Your task to perform on an android device: toggle priority inbox in the gmail app Image 0: 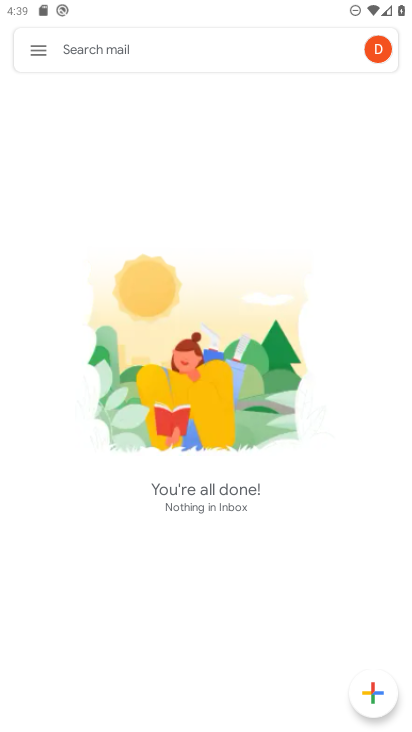
Step 0: press home button
Your task to perform on an android device: toggle priority inbox in the gmail app Image 1: 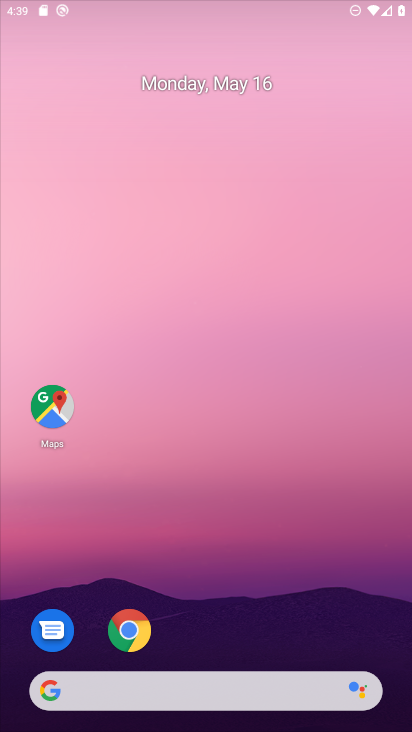
Step 1: drag from (348, 587) to (370, 21)
Your task to perform on an android device: toggle priority inbox in the gmail app Image 2: 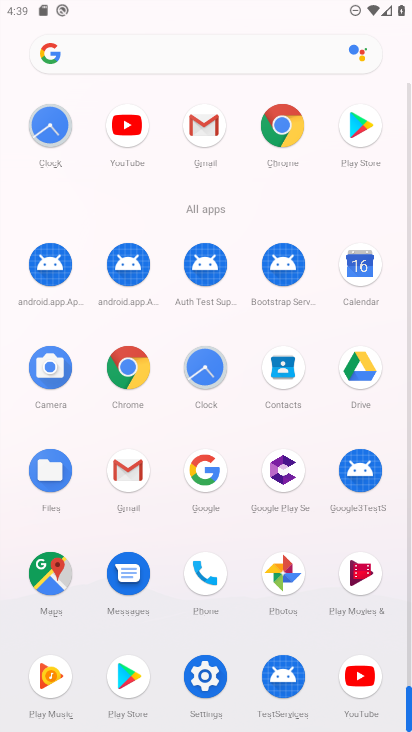
Step 2: click (201, 144)
Your task to perform on an android device: toggle priority inbox in the gmail app Image 3: 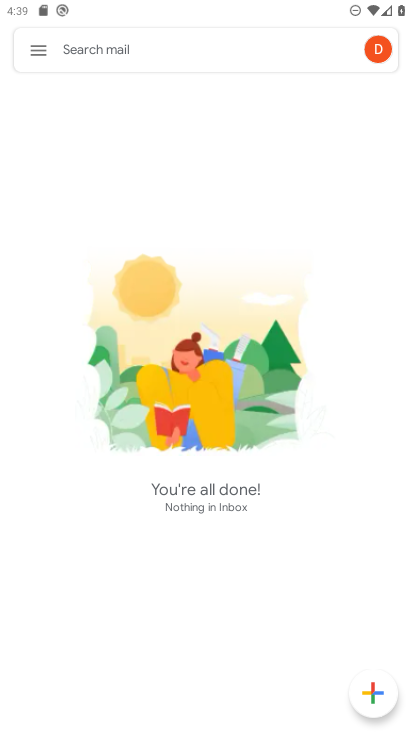
Step 3: click (46, 47)
Your task to perform on an android device: toggle priority inbox in the gmail app Image 4: 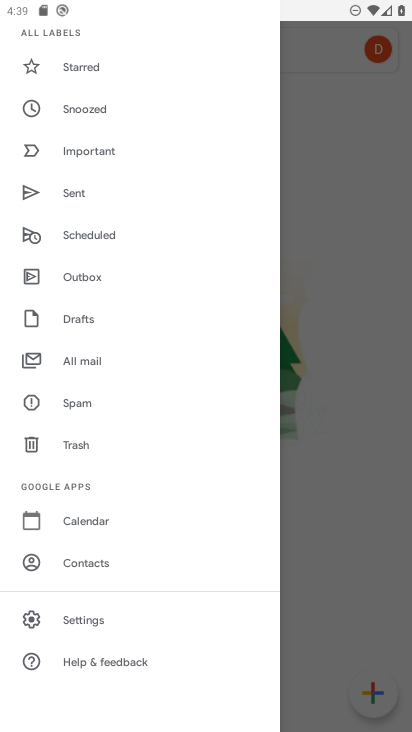
Step 4: click (66, 618)
Your task to perform on an android device: toggle priority inbox in the gmail app Image 5: 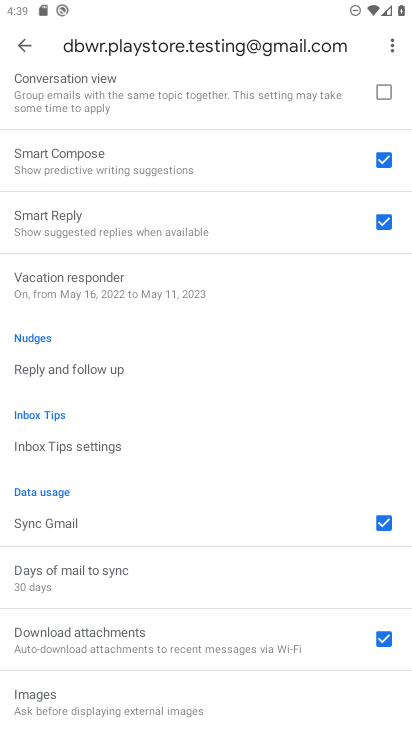
Step 5: drag from (153, 177) to (166, 728)
Your task to perform on an android device: toggle priority inbox in the gmail app Image 6: 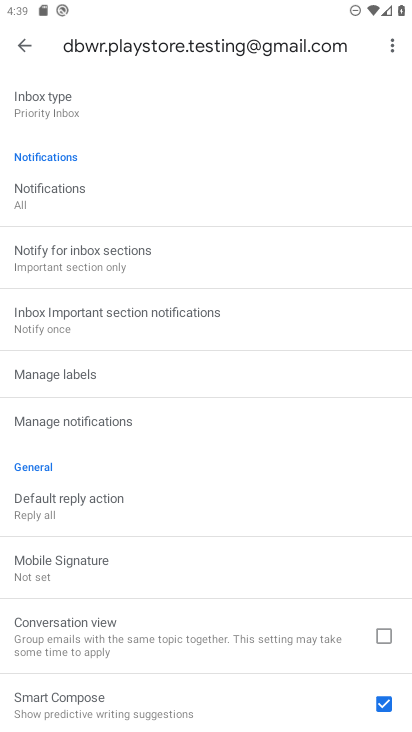
Step 6: drag from (104, 187) to (166, 726)
Your task to perform on an android device: toggle priority inbox in the gmail app Image 7: 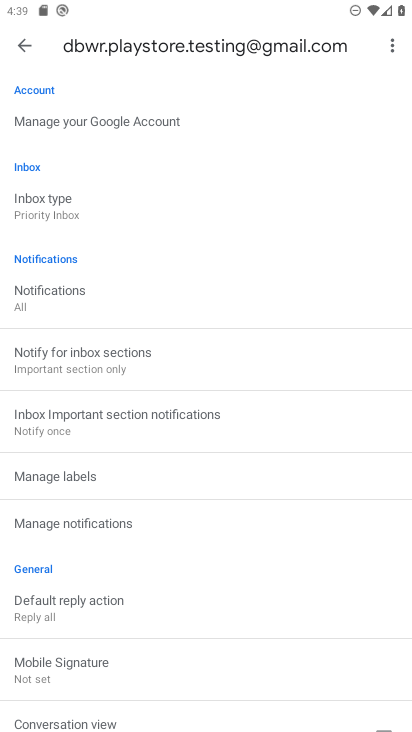
Step 7: click (40, 206)
Your task to perform on an android device: toggle priority inbox in the gmail app Image 8: 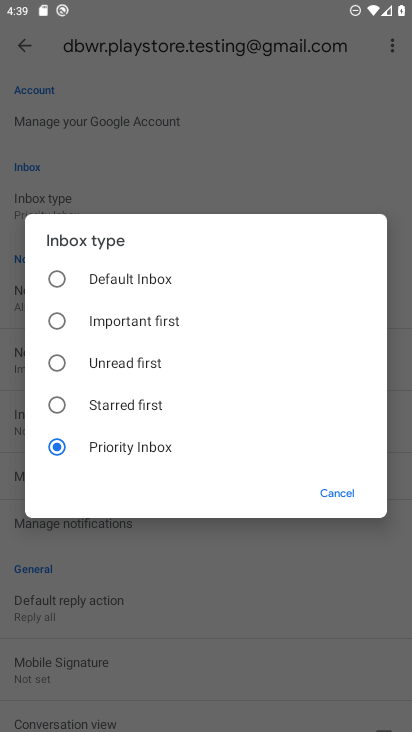
Step 8: click (101, 460)
Your task to perform on an android device: toggle priority inbox in the gmail app Image 9: 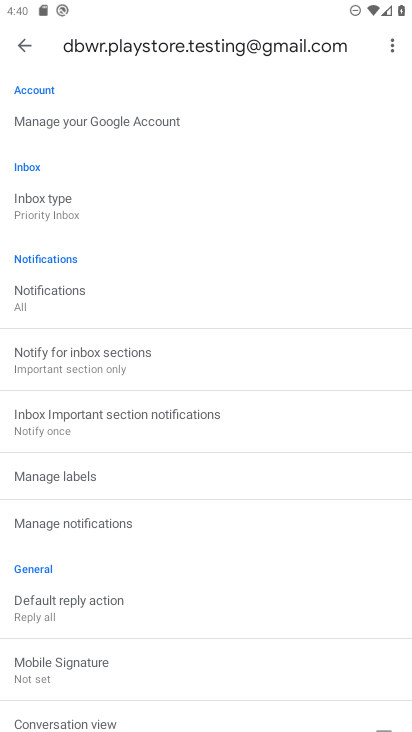
Step 9: task complete